Your task to perform on an android device: change the clock display to show seconds Image 0: 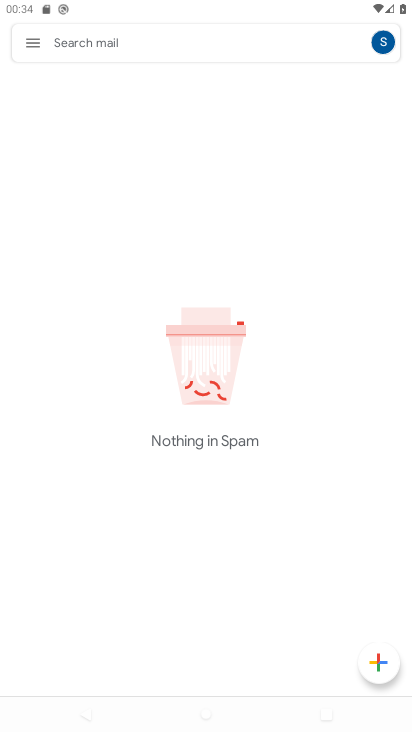
Step 0: drag from (308, 635) to (309, 541)
Your task to perform on an android device: change the clock display to show seconds Image 1: 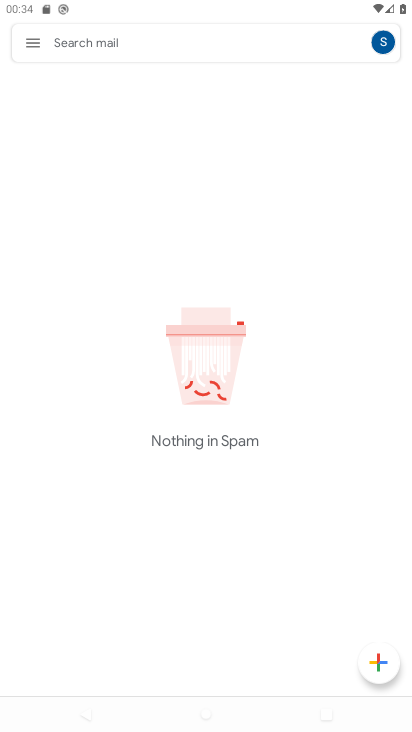
Step 1: press home button
Your task to perform on an android device: change the clock display to show seconds Image 2: 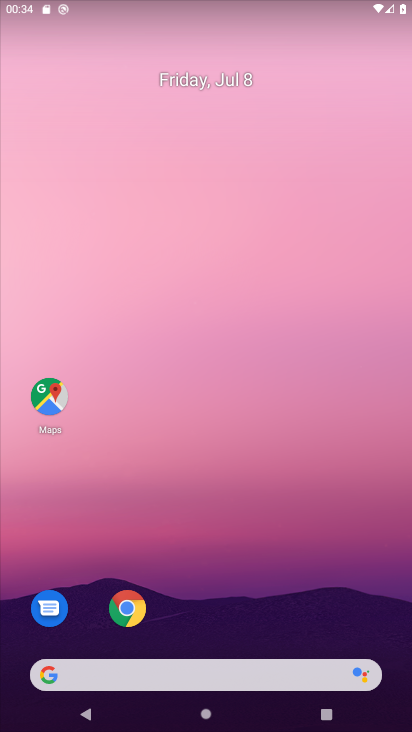
Step 2: drag from (217, 566) to (217, 124)
Your task to perform on an android device: change the clock display to show seconds Image 3: 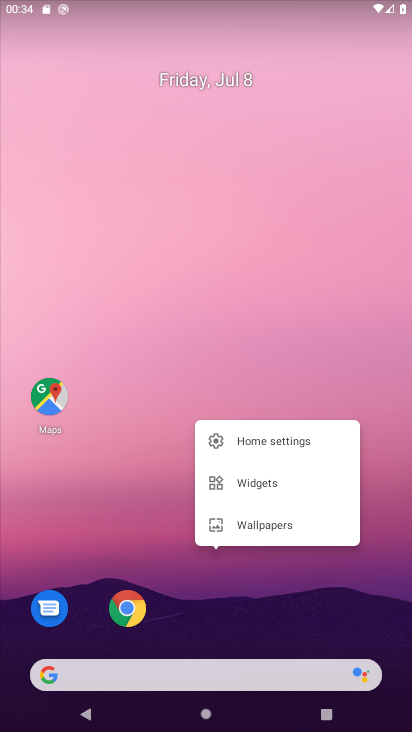
Step 3: drag from (211, 593) to (204, 110)
Your task to perform on an android device: change the clock display to show seconds Image 4: 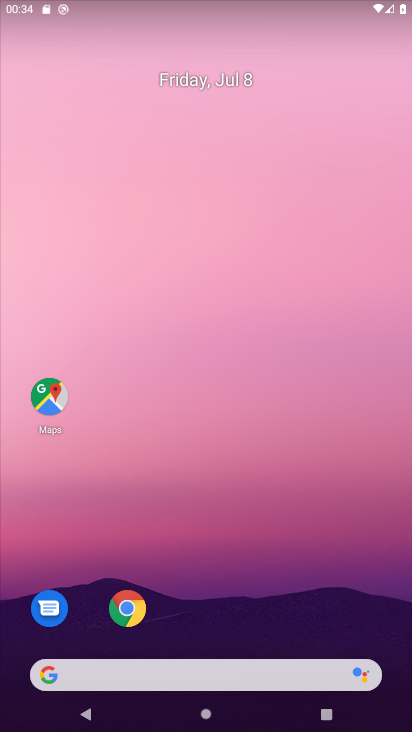
Step 4: drag from (169, 549) to (150, 227)
Your task to perform on an android device: change the clock display to show seconds Image 5: 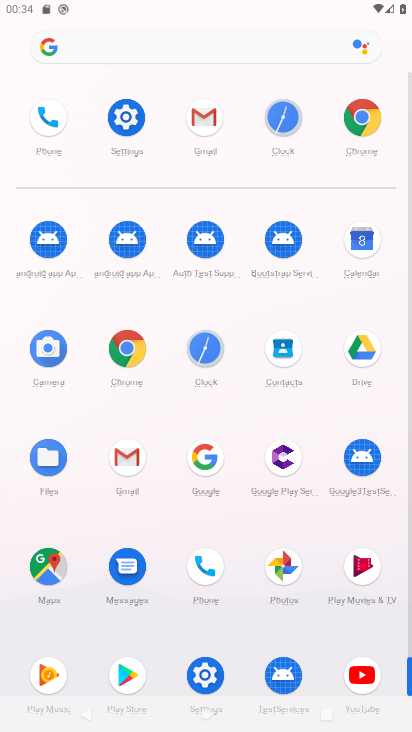
Step 5: click (207, 357)
Your task to perform on an android device: change the clock display to show seconds Image 6: 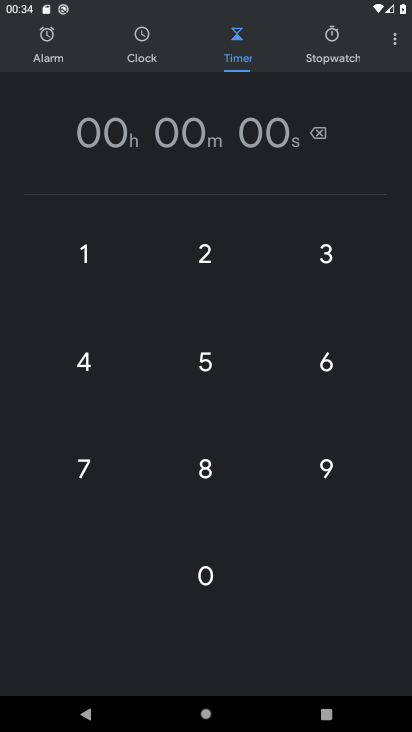
Step 6: click (407, 26)
Your task to perform on an android device: change the clock display to show seconds Image 7: 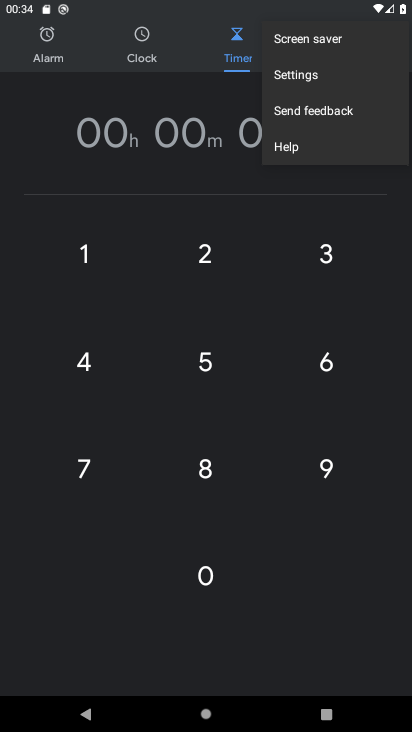
Step 7: click (333, 70)
Your task to perform on an android device: change the clock display to show seconds Image 8: 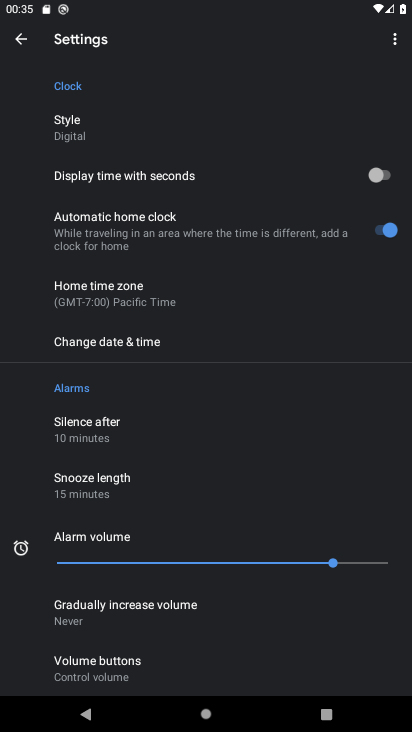
Step 8: click (378, 170)
Your task to perform on an android device: change the clock display to show seconds Image 9: 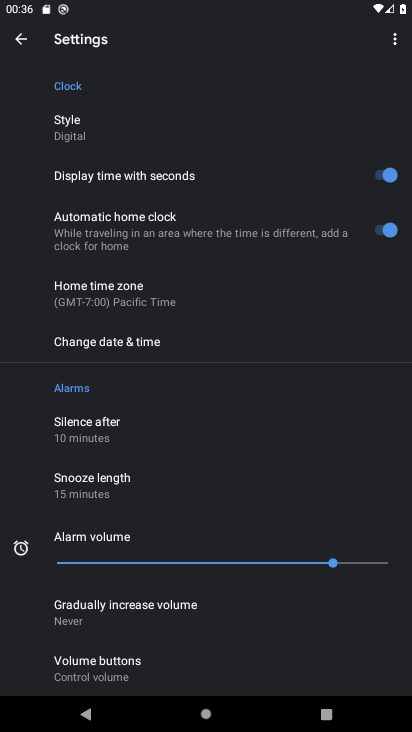
Step 9: task complete